Your task to perform on an android device: What is the news today? Image 0: 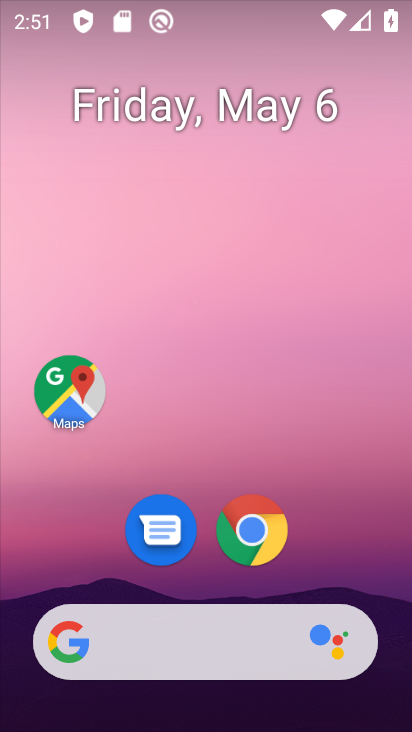
Step 0: click (287, 144)
Your task to perform on an android device: What is the news today? Image 1: 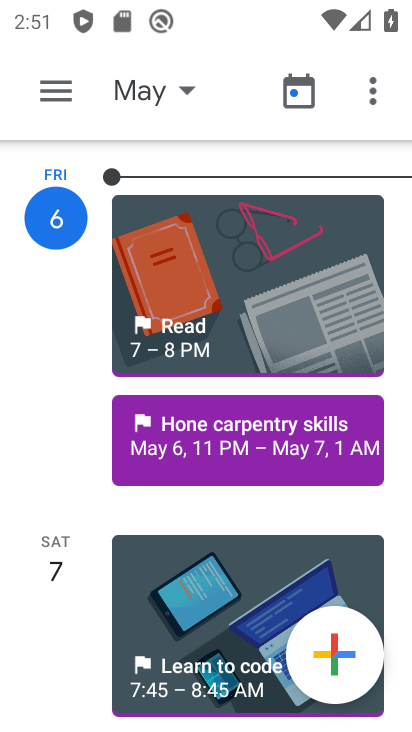
Step 1: press home button
Your task to perform on an android device: What is the news today? Image 2: 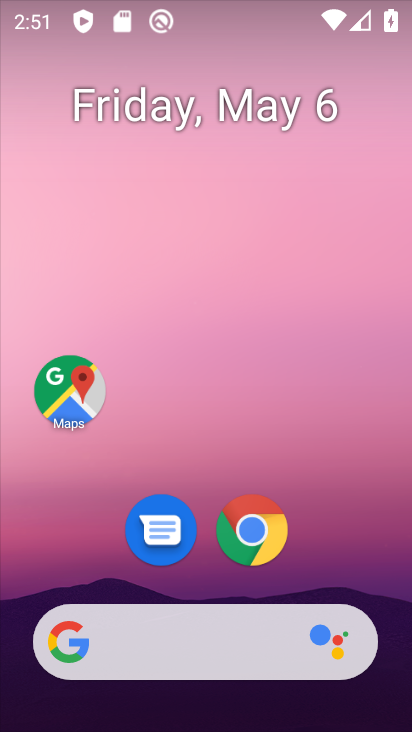
Step 2: drag from (265, 584) to (354, 46)
Your task to perform on an android device: What is the news today? Image 3: 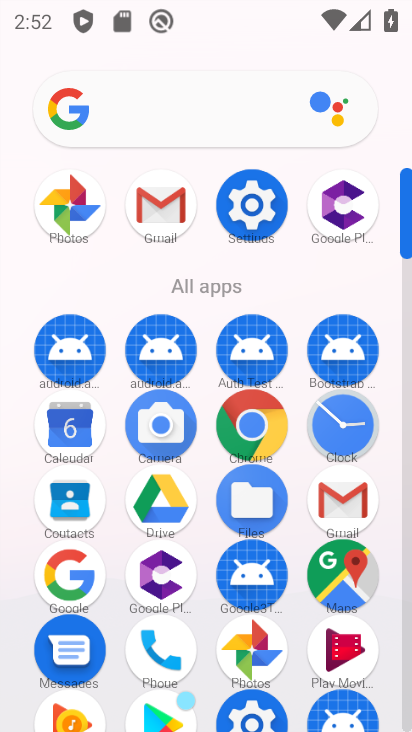
Step 3: drag from (256, 563) to (306, 242)
Your task to perform on an android device: What is the news today? Image 4: 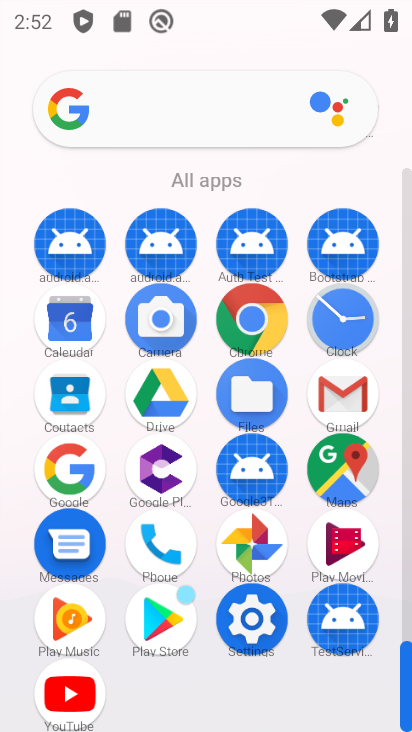
Step 4: click (62, 482)
Your task to perform on an android device: What is the news today? Image 5: 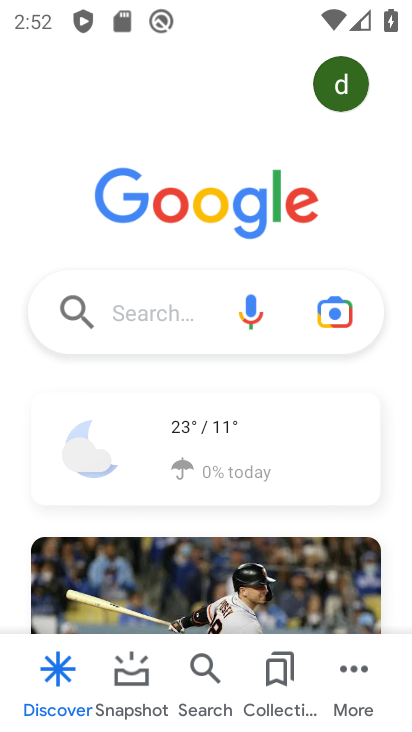
Step 5: click (164, 322)
Your task to perform on an android device: What is the news today? Image 6: 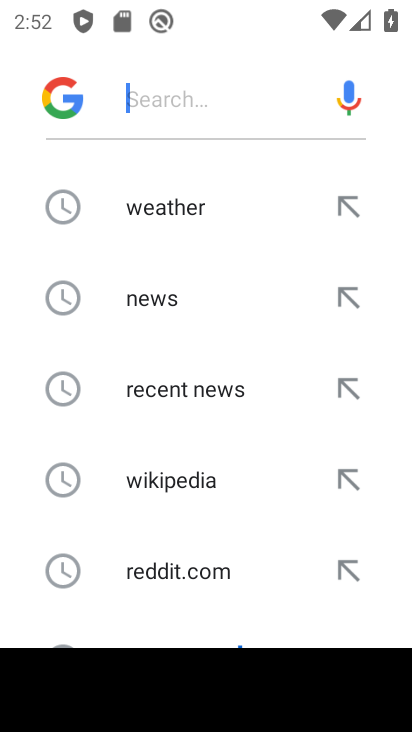
Step 6: click (248, 293)
Your task to perform on an android device: What is the news today? Image 7: 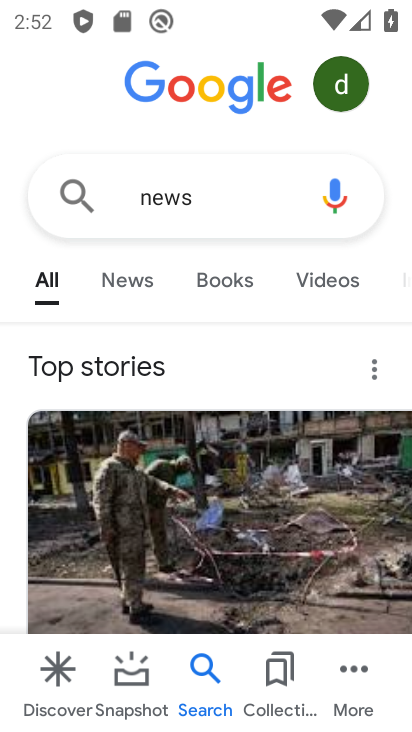
Step 7: click (147, 282)
Your task to perform on an android device: What is the news today? Image 8: 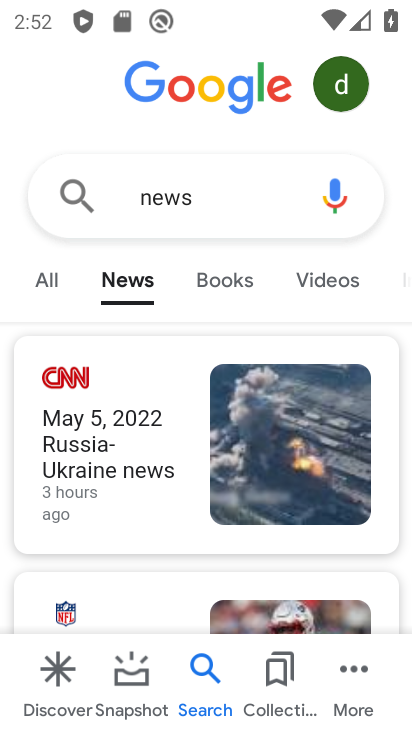
Step 8: task complete